Your task to perform on an android device: Do I have any events today? Image 0: 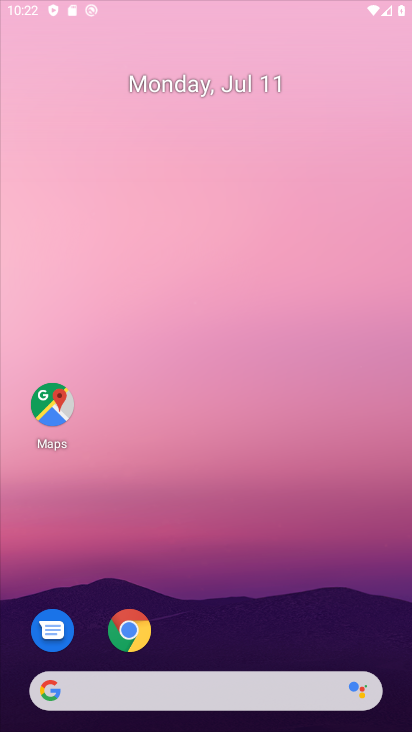
Step 0: click (275, 0)
Your task to perform on an android device: Do I have any events today? Image 1: 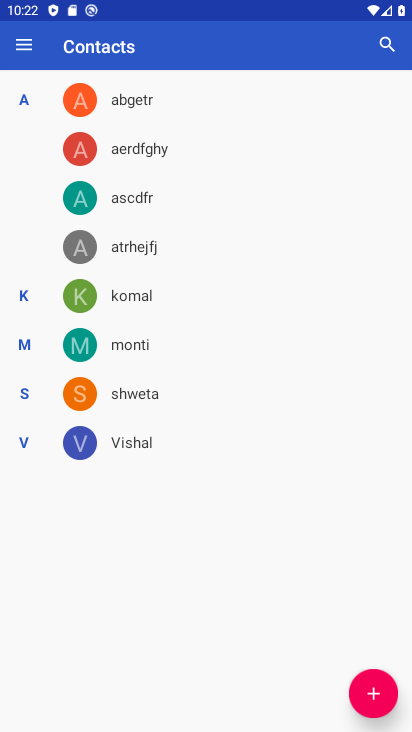
Step 1: press home button
Your task to perform on an android device: Do I have any events today? Image 2: 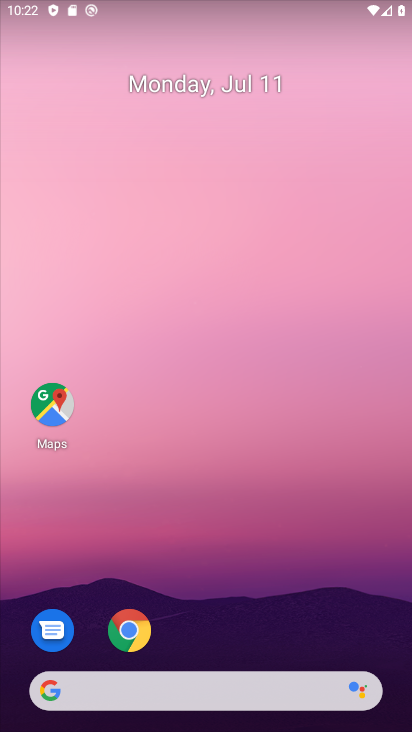
Step 2: drag from (264, 584) to (210, 0)
Your task to perform on an android device: Do I have any events today? Image 3: 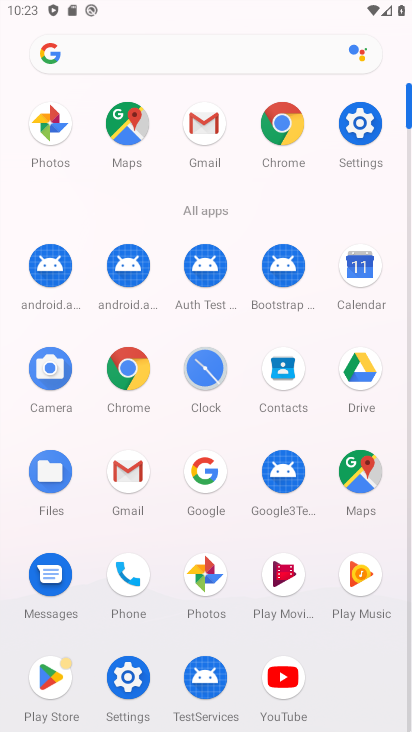
Step 3: click (376, 273)
Your task to perform on an android device: Do I have any events today? Image 4: 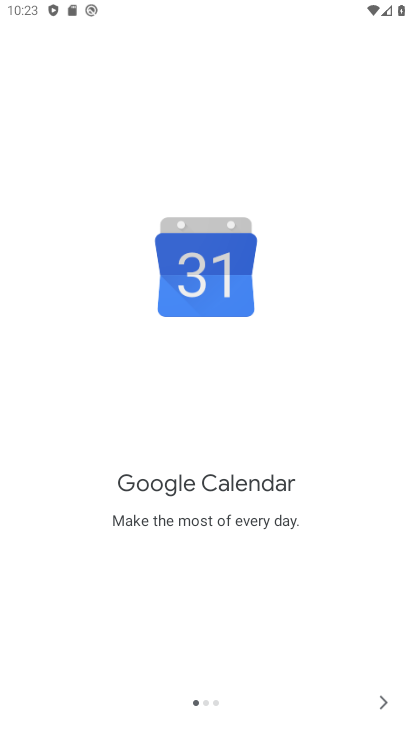
Step 4: click (377, 695)
Your task to perform on an android device: Do I have any events today? Image 5: 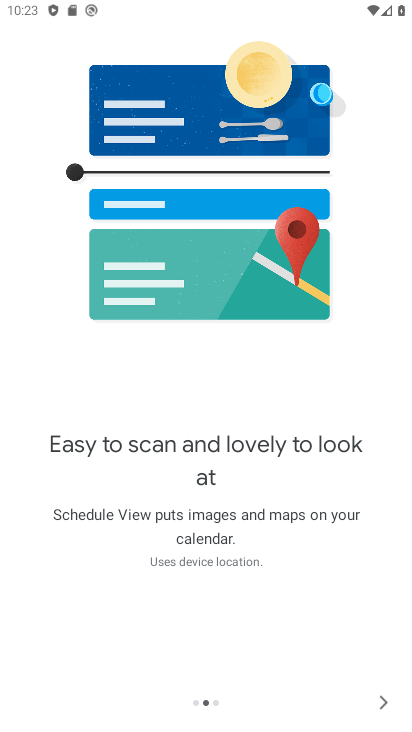
Step 5: click (383, 704)
Your task to perform on an android device: Do I have any events today? Image 6: 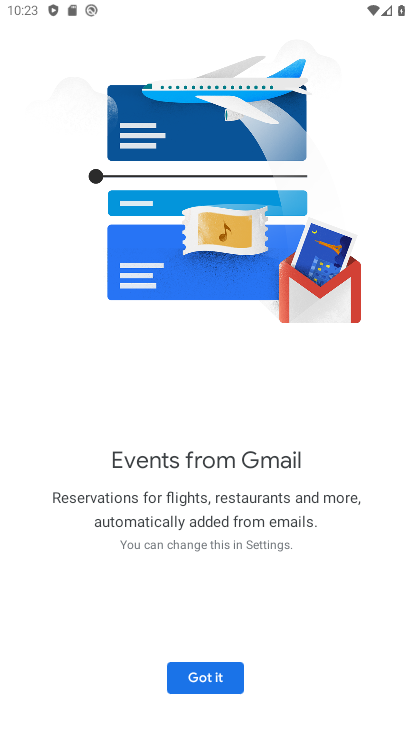
Step 6: click (203, 673)
Your task to perform on an android device: Do I have any events today? Image 7: 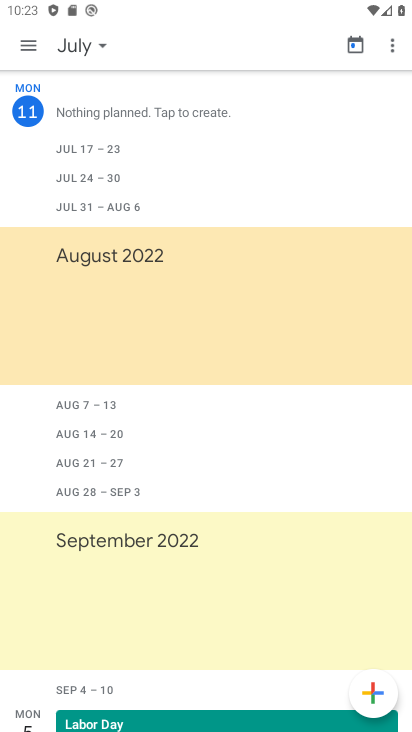
Step 7: click (101, 43)
Your task to perform on an android device: Do I have any events today? Image 8: 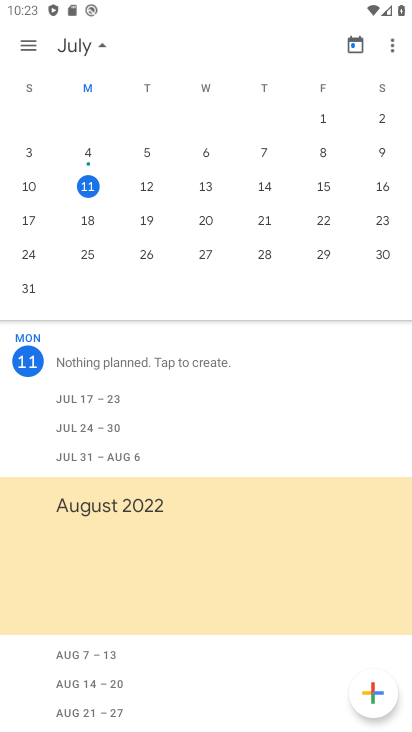
Step 8: task complete